Your task to perform on an android device: delete a single message in the gmail app Image 0: 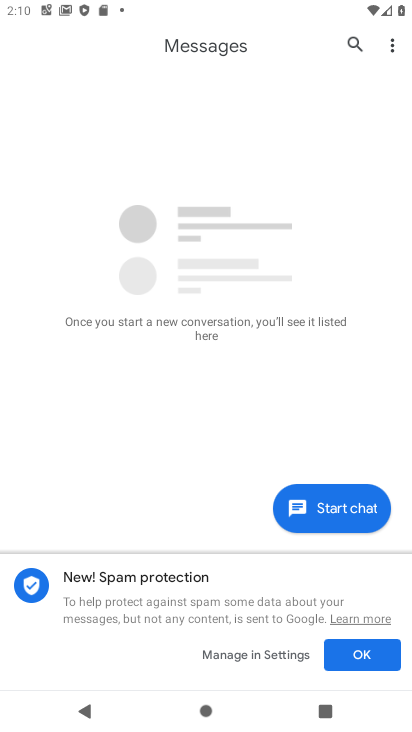
Step 0: press home button
Your task to perform on an android device: delete a single message in the gmail app Image 1: 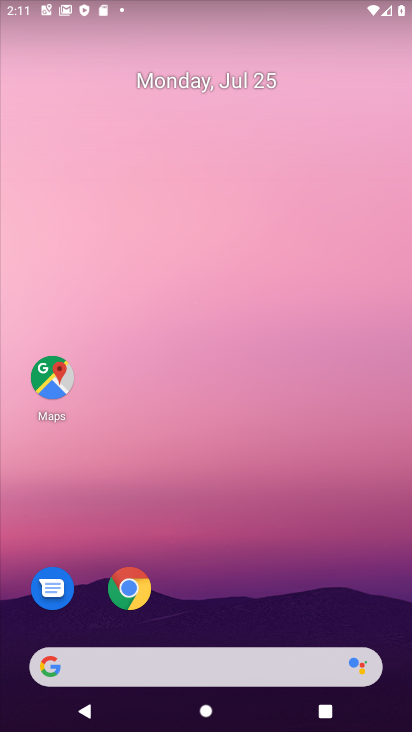
Step 1: drag from (223, 596) to (273, 188)
Your task to perform on an android device: delete a single message in the gmail app Image 2: 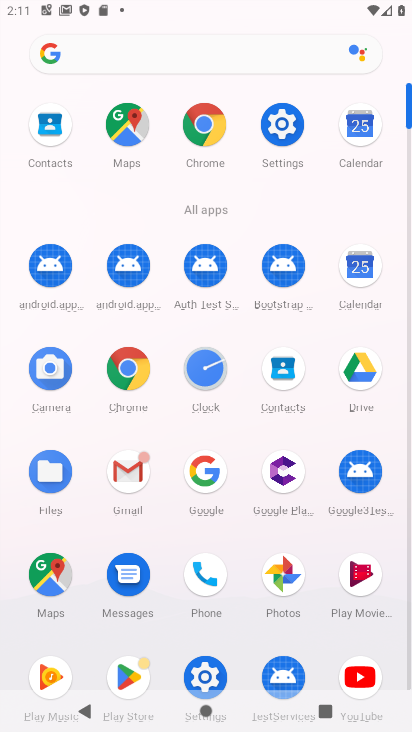
Step 2: click (135, 475)
Your task to perform on an android device: delete a single message in the gmail app Image 3: 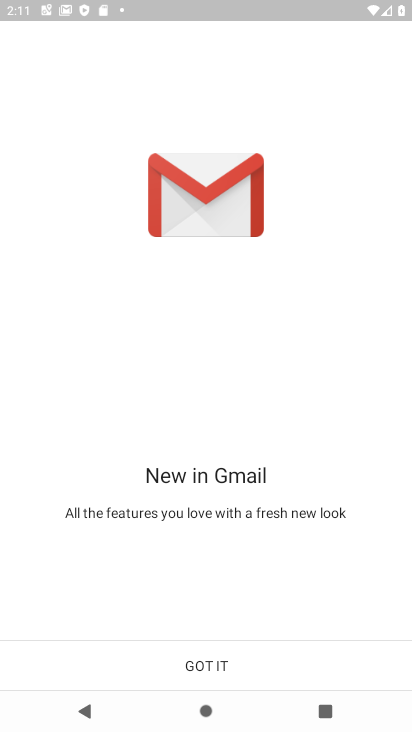
Step 3: click (206, 670)
Your task to perform on an android device: delete a single message in the gmail app Image 4: 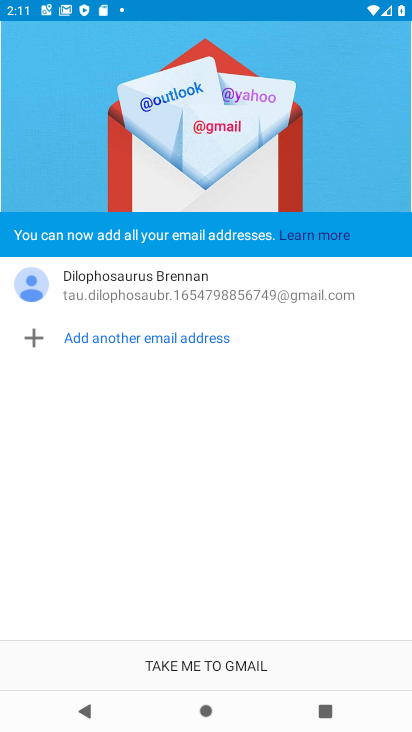
Step 4: click (205, 669)
Your task to perform on an android device: delete a single message in the gmail app Image 5: 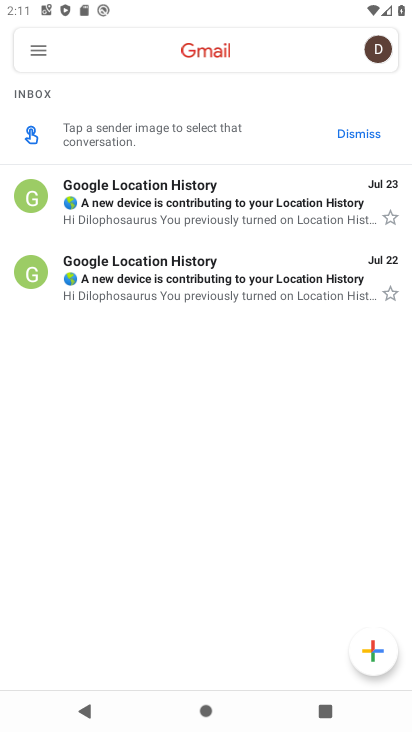
Step 5: click (29, 56)
Your task to perform on an android device: delete a single message in the gmail app Image 6: 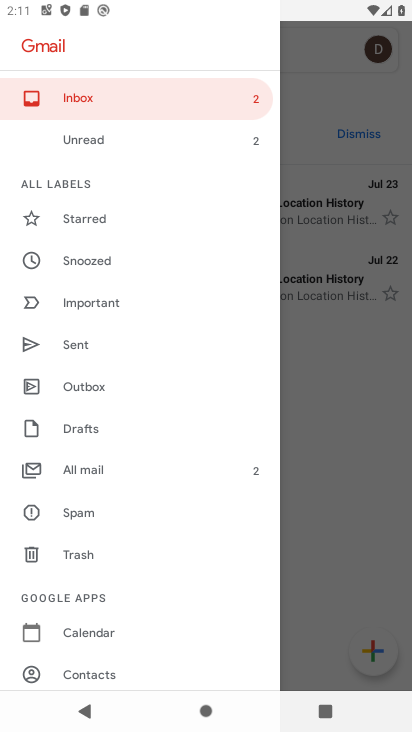
Step 6: click (92, 463)
Your task to perform on an android device: delete a single message in the gmail app Image 7: 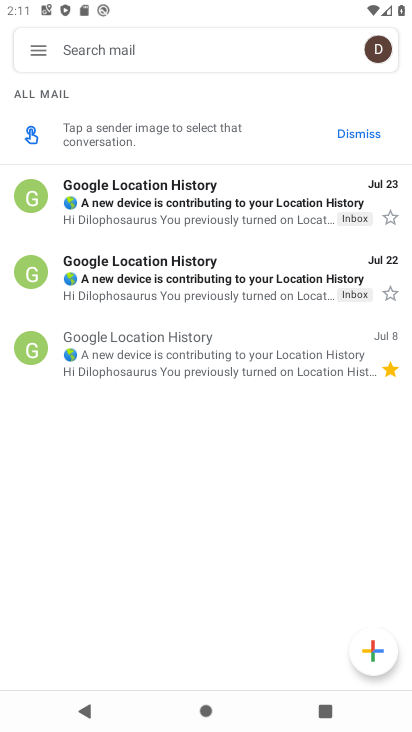
Step 7: click (126, 204)
Your task to perform on an android device: delete a single message in the gmail app Image 8: 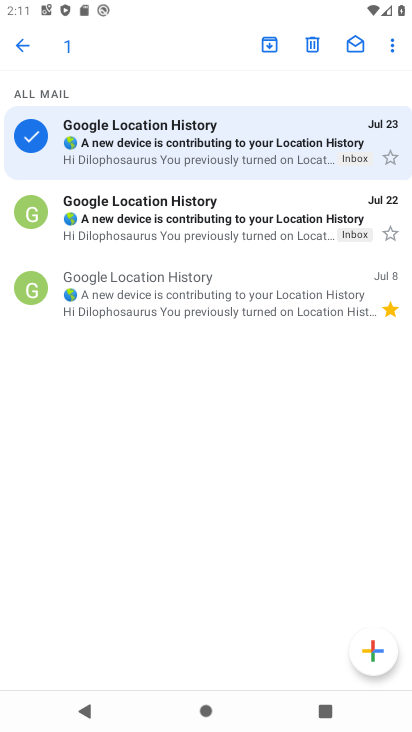
Step 8: click (305, 46)
Your task to perform on an android device: delete a single message in the gmail app Image 9: 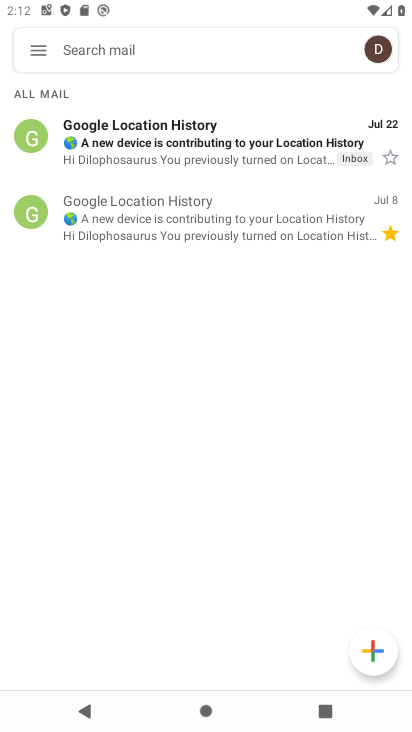
Step 9: task complete